Your task to perform on an android device: toggle translation in the chrome app Image 0: 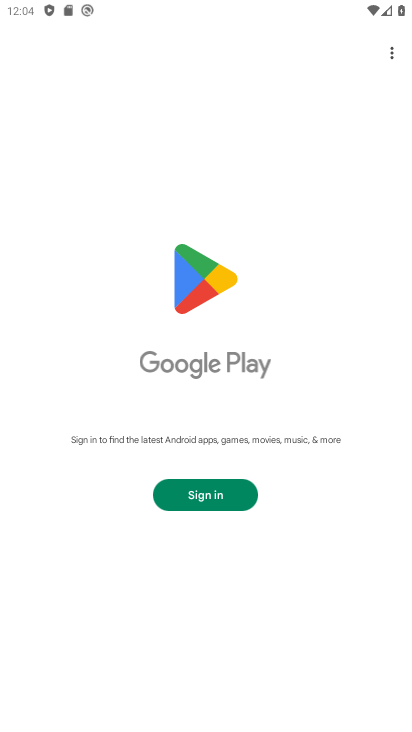
Step 0: press home button
Your task to perform on an android device: toggle translation in the chrome app Image 1: 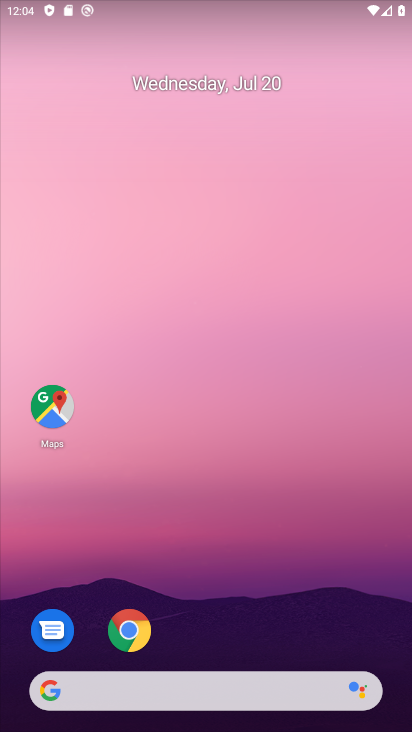
Step 1: drag from (207, 580) to (220, 90)
Your task to perform on an android device: toggle translation in the chrome app Image 2: 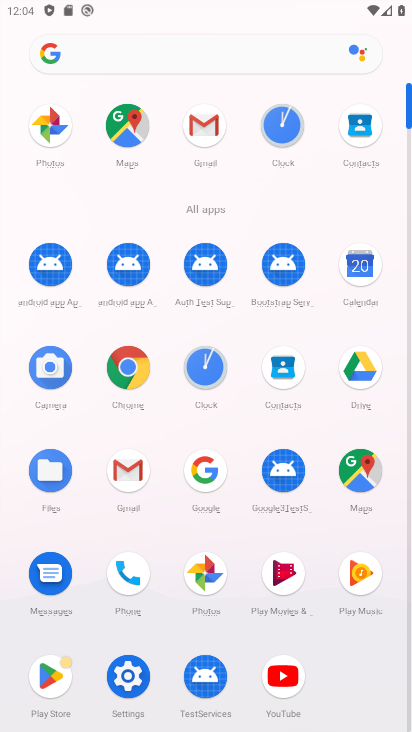
Step 2: click (121, 377)
Your task to perform on an android device: toggle translation in the chrome app Image 3: 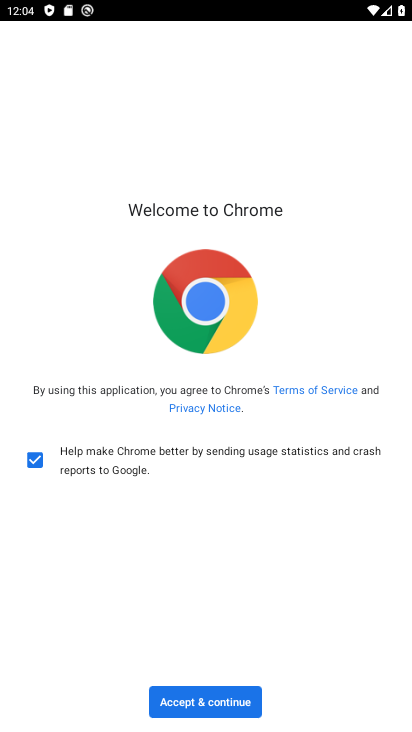
Step 3: click (210, 712)
Your task to perform on an android device: toggle translation in the chrome app Image 4: 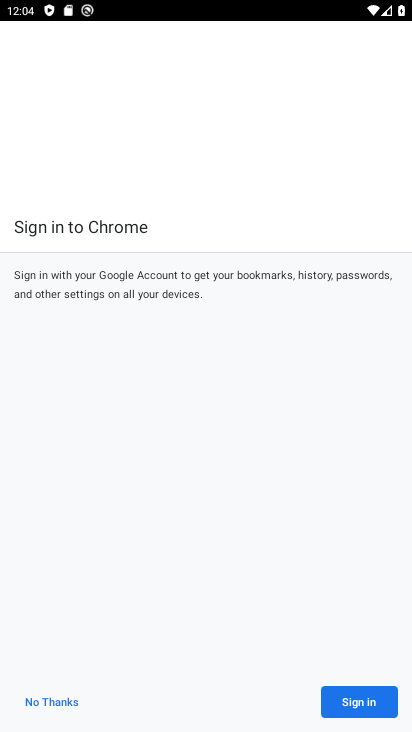
Step 4: click (344, 693)
Your task to perform on an android device: toggle translation in the chrome app Image 5: 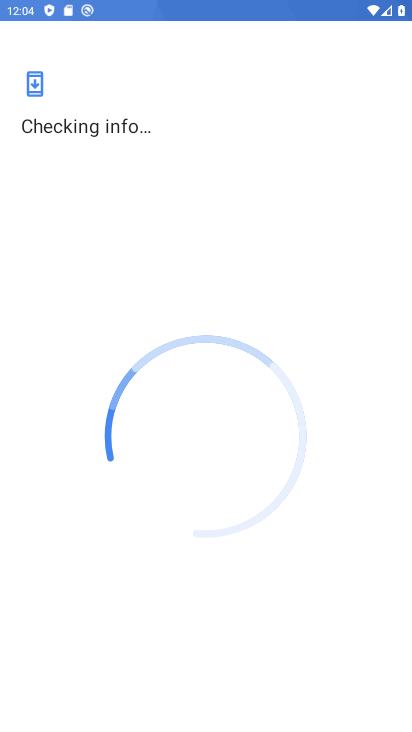
Step 5: press back button
Your task to perform on an android device: toggle translation in the chrome app Image 6: 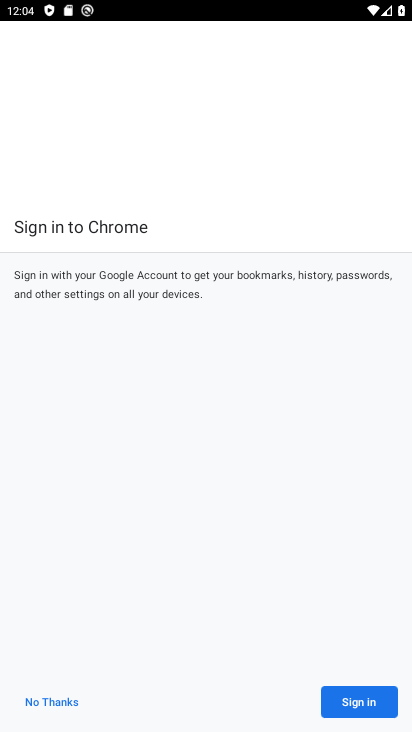
Step 6: click (47, 704)
Your task to perform on an android device: toggle translation in the chrome app Image 7: 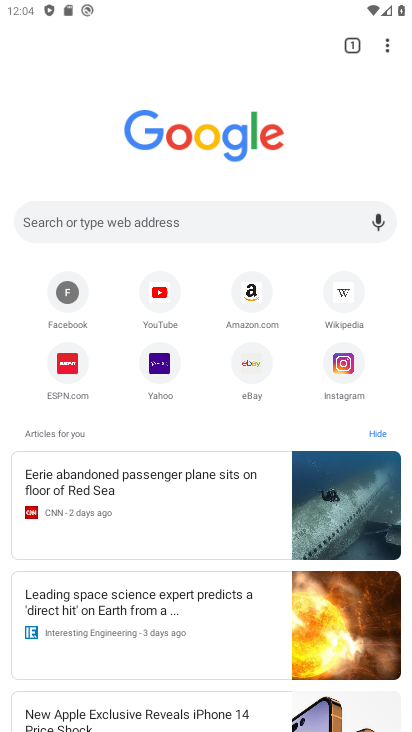
Step 7: click (388, 56)
Your task to perform on an android device: toggle translation in the chrome app Image 8: 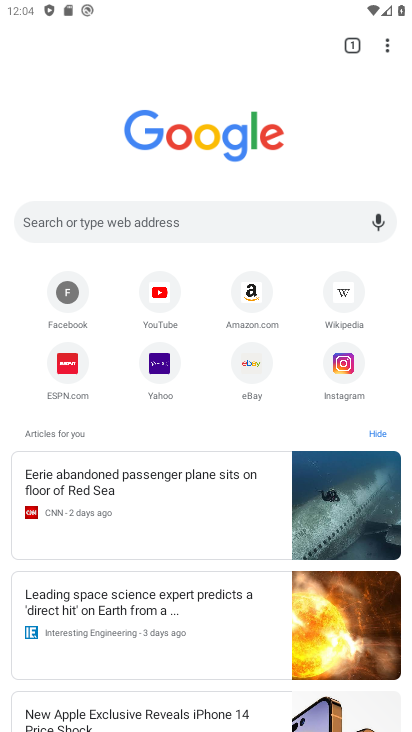
Step 8: click (382, 54)
Your task to perform on an android device: toggle translation in the chrome app Image 9: 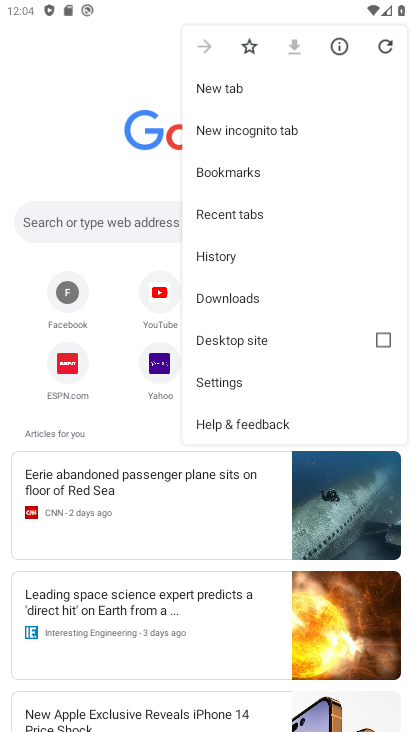
Step 9: click (224, 388)
Your task to perform on an android device: toggle translation in the chrome app Image 10: 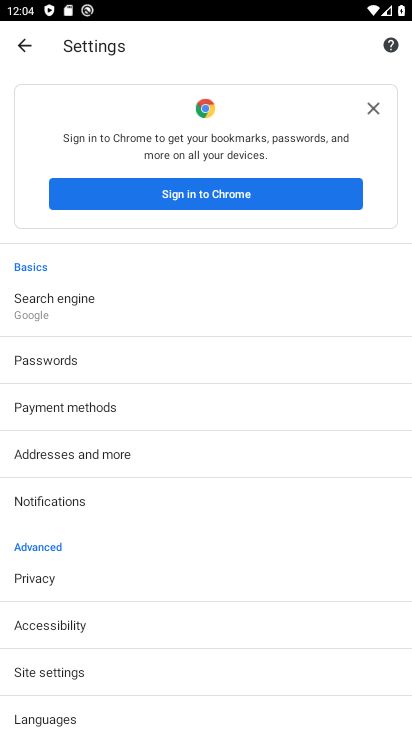
Step 10: drag from (105, 641) to (149, 408)
Your task to perform on an android device: toggle translation in the chrome app Image 11: 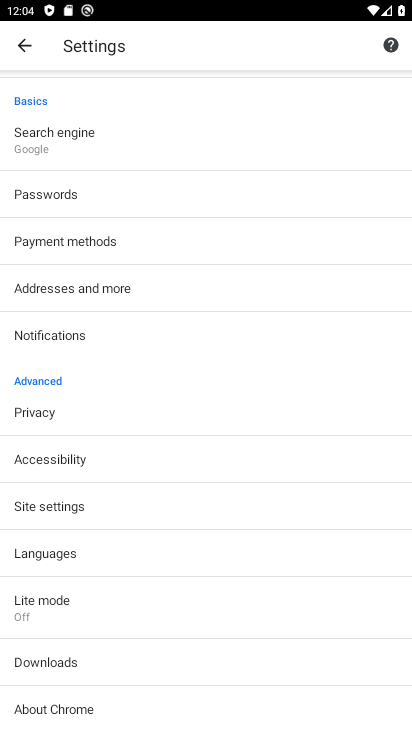
Step 11: click (80, 559)
Your task to perform on an android device: toggle translation in the chrome app Image 12: 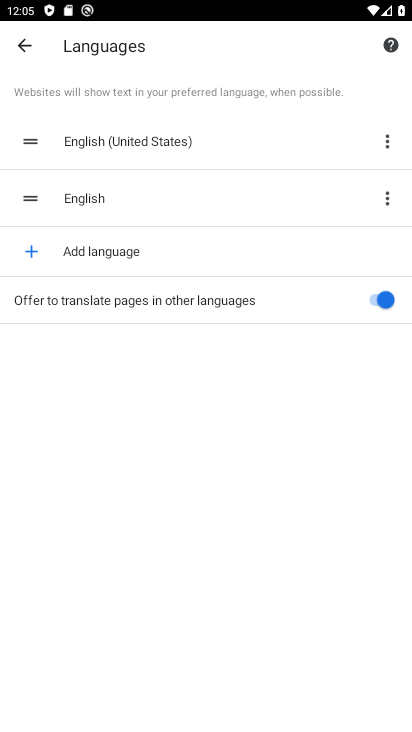
Step 12: click (346, 300)
Your task to perform on an android device: toggle translation in the chrome app Image 13: 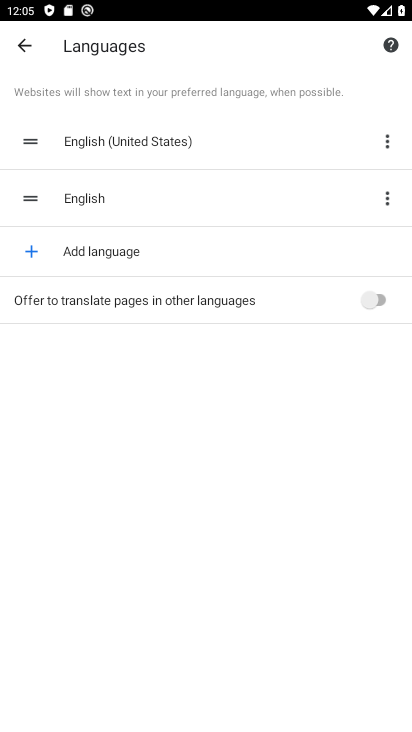
Step 13: task complete